Your task to perform on an android device: turn on the 12-hour format for clock Image 0: 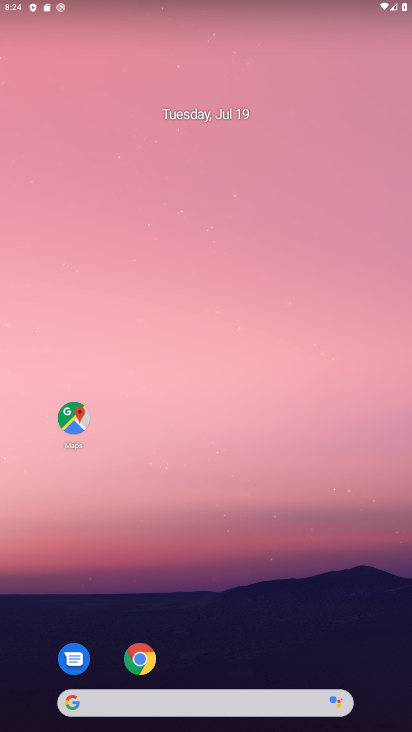
Step 0: drag from (261, 611) to (308, 159)
Your task to perform on an android device: turn on the 12-hour format for clock Image 1: 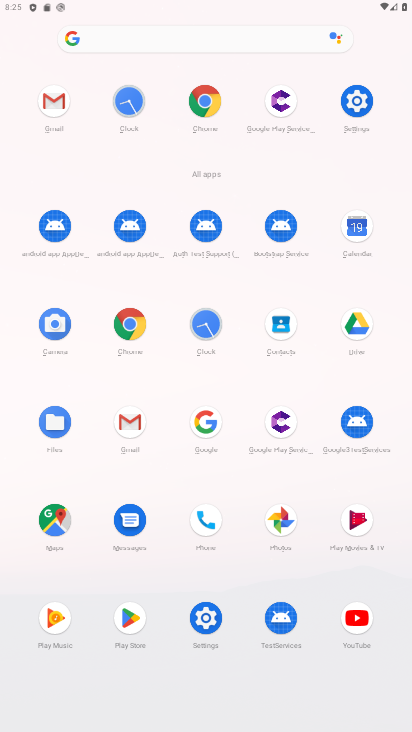
Step 1: click (218, 330)
Your task to perform on an android device: turn on the 12-hour format for clock Image 2: 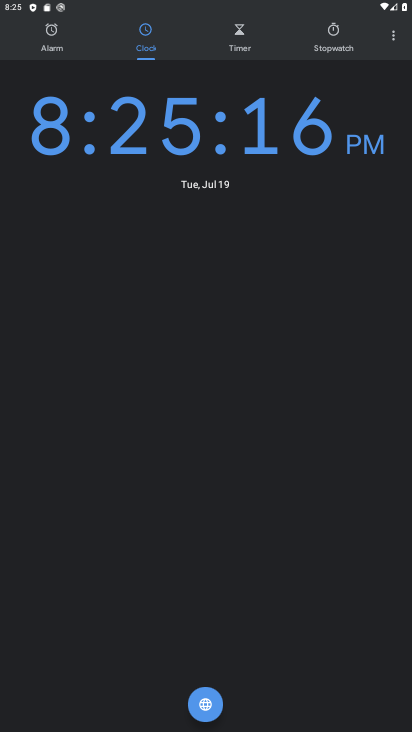
Step 2: click (388, 42)
Your task to perform on an android device: turn on the 12-hour format for clock Image 3: 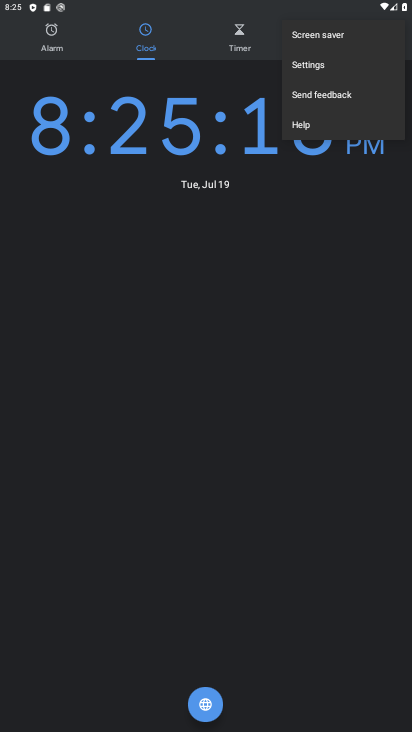
Step 3: click (356, 68)
Your task to perform on an android device: turn on the 12-hour format for clock Image 4: 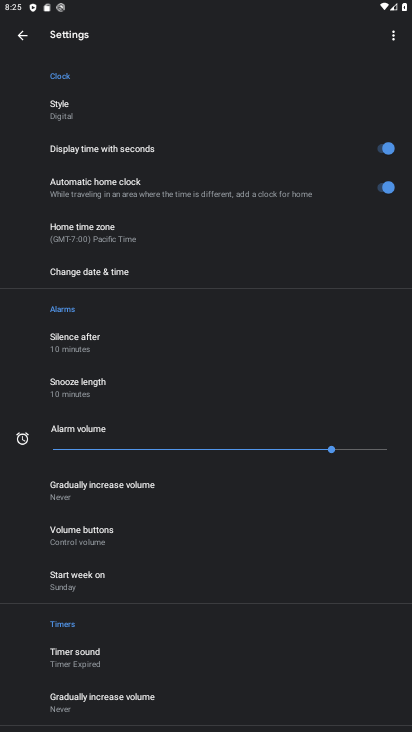
Step 4: click (146, 282)
Your task to perform on an android device: turn on the 12-hour format for clock Image 5: 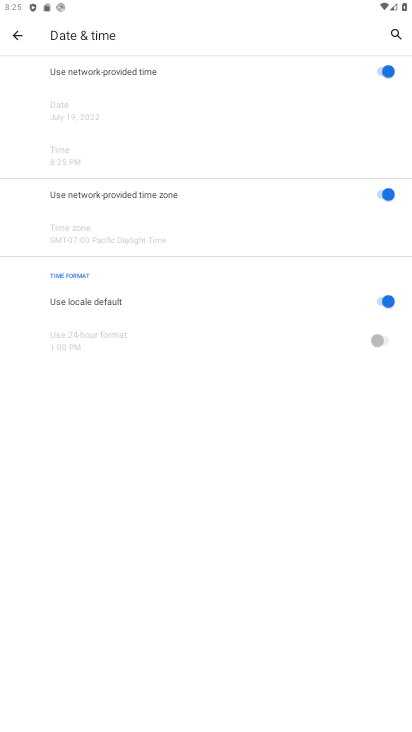
Step 5: task complete